Your task to perform on an android device: turn off sleep mode Image 0: 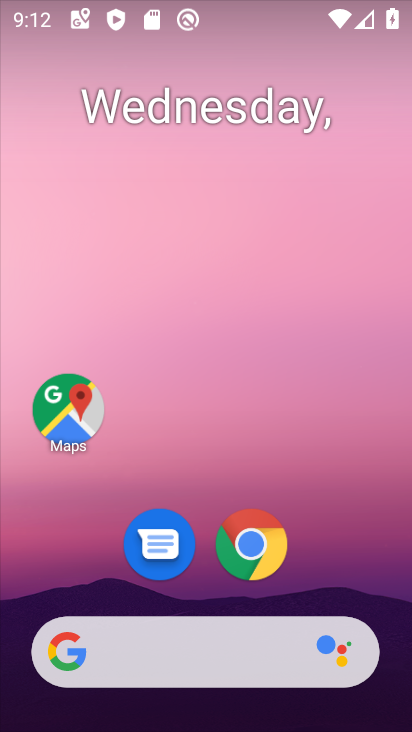
Step 0: drag from (194, 575) to (225, 26)
Your task to perform on an android device: turn off sleep mode Image 1: 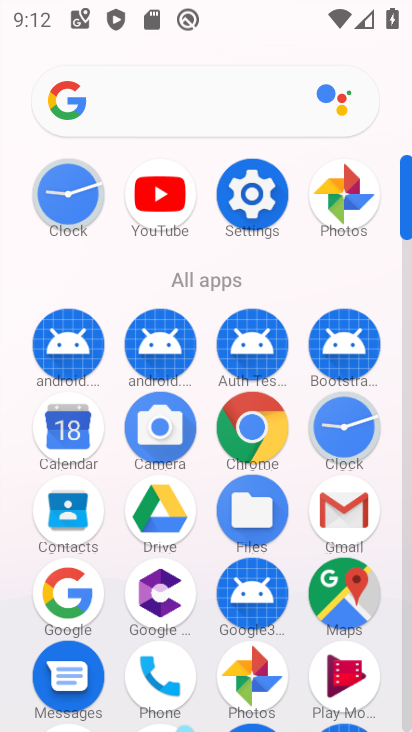
Step 1: click (249, 162)
Your task to perform on an android device: turn off sleep mode Image 2: 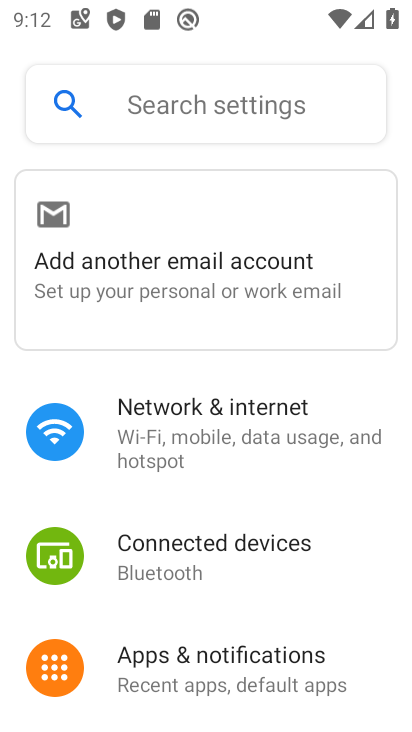
Step 2: task complete